Your task to perform on an android device: Search for Italian restaurants on Maps Image 0: 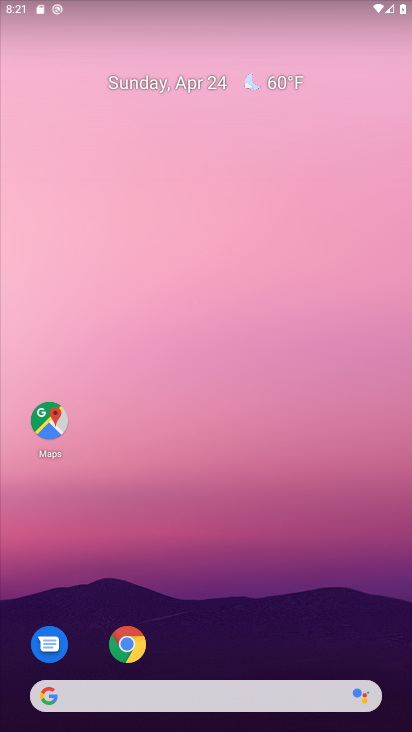
Step 0: drag from (212, 660) to (257, 30)
Your task to perform on an android device: Search for Italian restaurants on Maps Image 1: 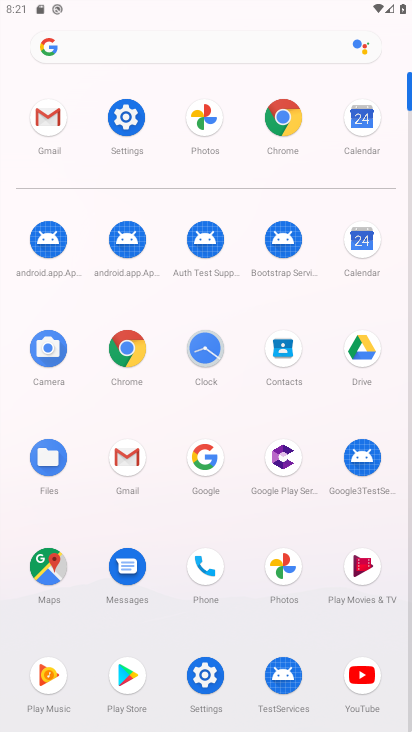
Step 1: click (44, 563)
Your task to perform on an android device: Search for Italian restaurants on Maps Image 2: 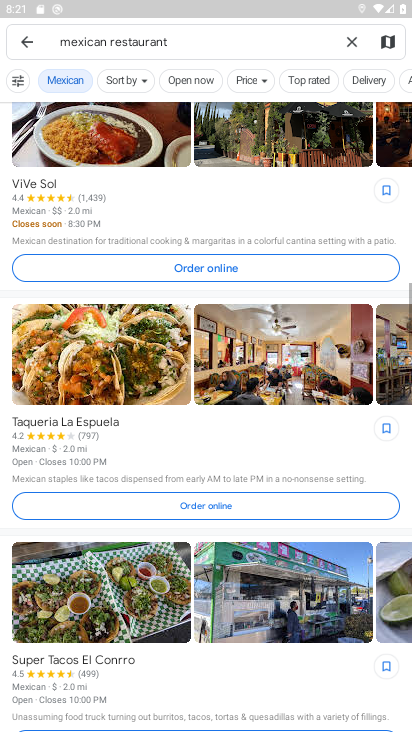
Step 2: drag from (210, 654) to (225, 178)
Your task to perform on an android device: Search for Italian restaurants on Maps Image 3: 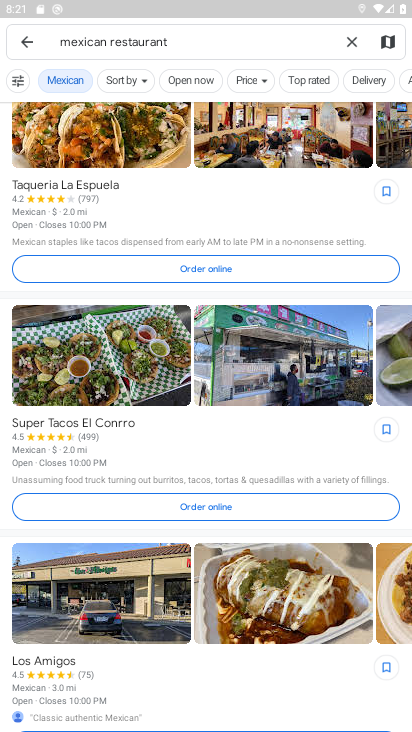
Step 3: click (352, 41)
Your task to perform on an android device: Search for Italian restaurants on Maps Image 4: 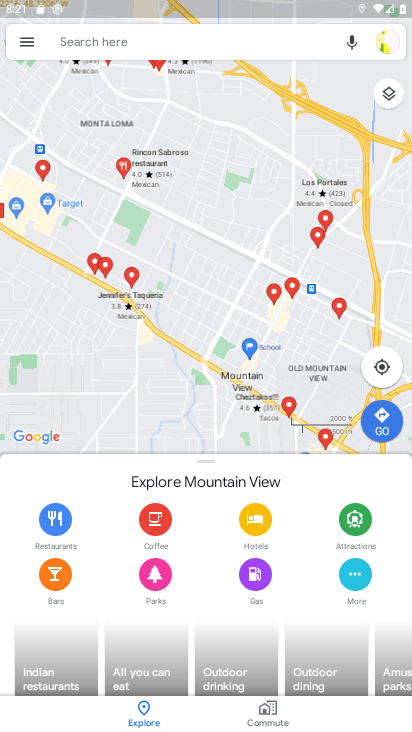
Step 4: click (151, 36)
Your task to perform on an android device: Search for Italian restaurants on Maps Image 5: 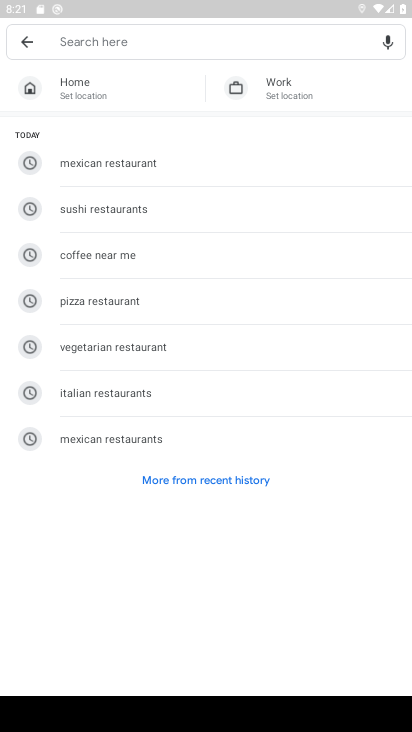
Step 5: type "italian"
Your task to perform on an android device: Search for Italian restaurants on Maps Image 6: 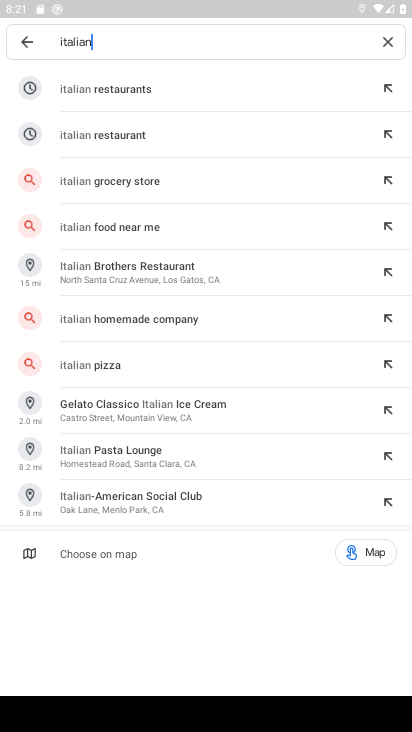
Step 6: click (109, 84)
Your task to perform on an android device: Search for Italian restaurants on Maps Image 7: 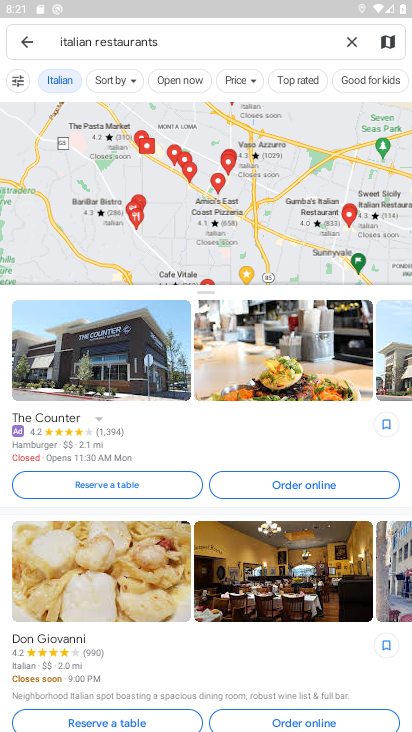
Step 7: drag from (205, 508) to (213, 149)
Your task to perform on an android device: Search for Italian restaurants on Maps Image 8: 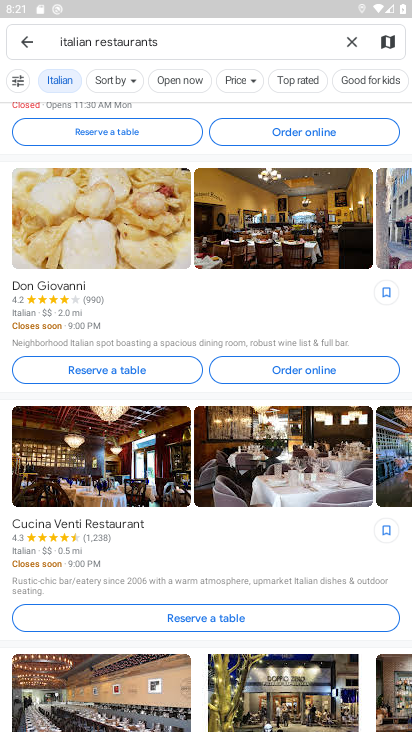
Step 8: drag from (194, 545) to (204, 219)
Your task to perform on an android device: Search for Italian restaurants on Maps Image 9: 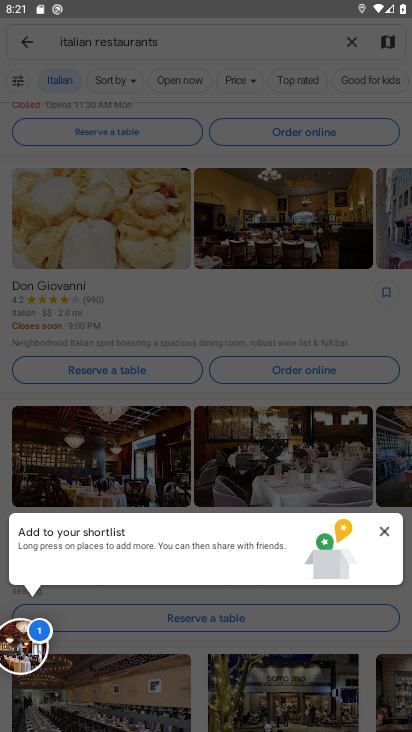
Step 9: drag from (21, 645) to (230, 705)
Your task to perform on an android device: Search for Italian restaurants on Maps Image 10: 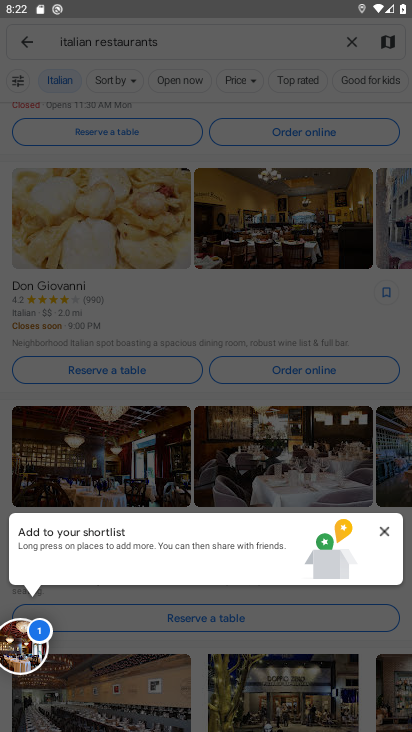
Step 10: click (381, 533)
Your task to perform on an android device: Search for Italian restaurants on Maps Image 11: 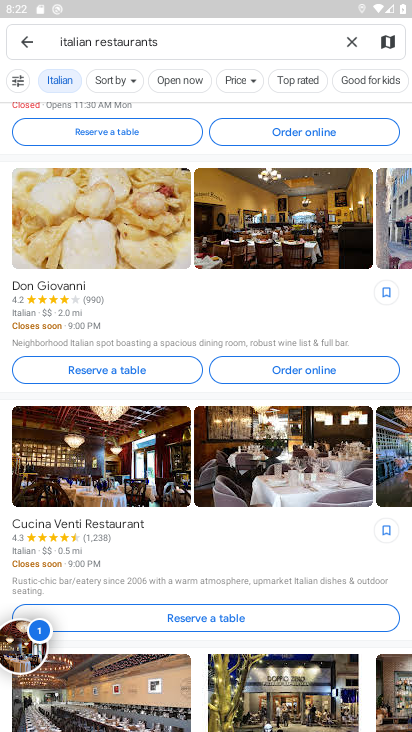
Step 11: drag from (21, 643) to (223, 731)
Your task to perform on an android device: Search for Italian restaurants on Maps Image 12: 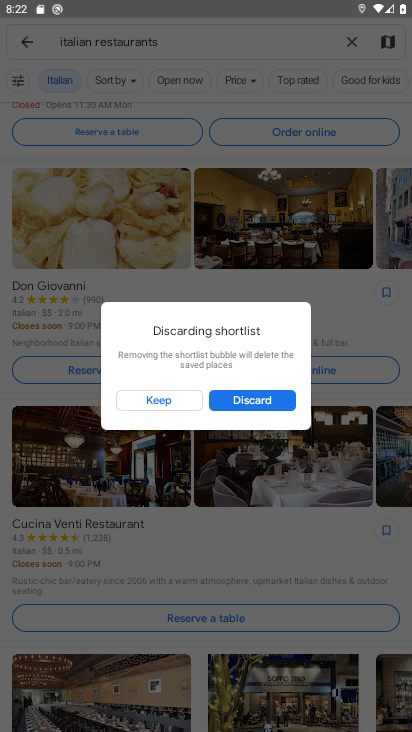
Step 12: click (234, 396)
Your task to perform on an android device: Search for Italian restaurants on Maps Image 13: 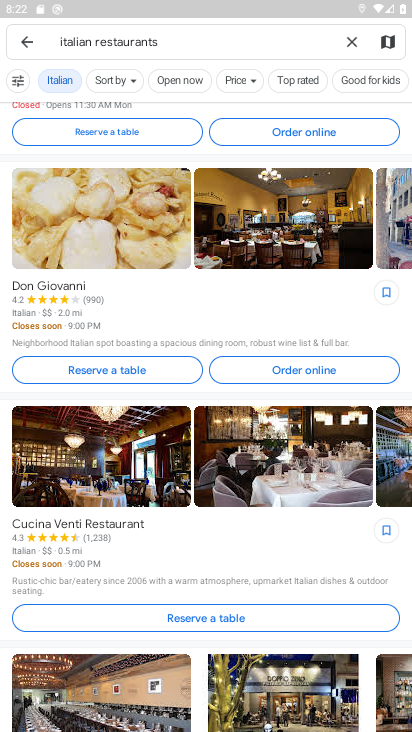
Step 13: task complete